Your task to perform on an android device: open app "Instagram" (install if not already installed) Image 0: 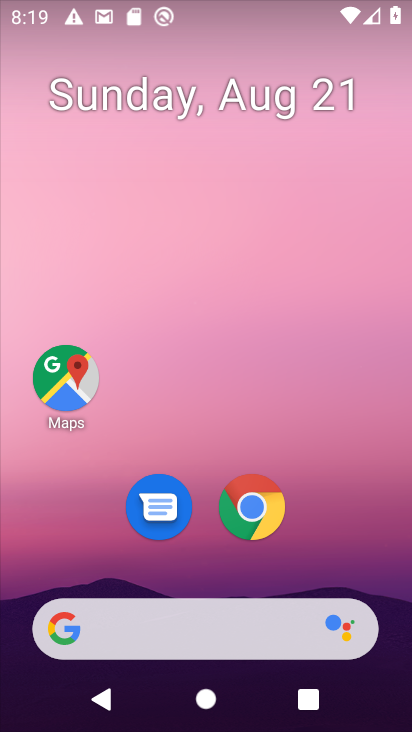
Step 0: drag from (200, 237) to (225, 36)
Your task to perform on an android device: open app "Instagram" (install if not already installed) Image 1: 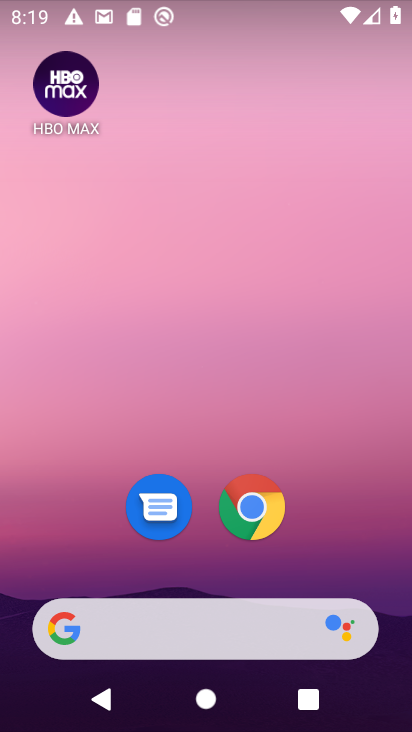
Step 1: drag from (212, 195) to (212, 133)
Your task to perform on an android device: open app "Instagram" (install if not already installed) Image 2: 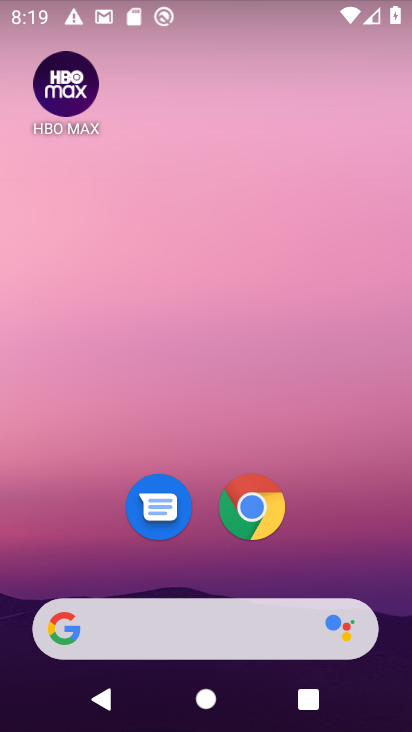
Step 2: drag from (206, 563) to (265, 42)
Your task to perform on an android device: open app "Instagram" (install if not already installed) Image 3: 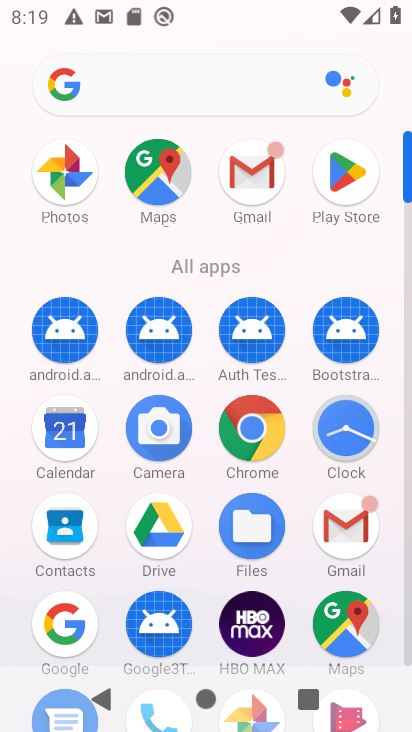
Step 3: click (341, 165)
Your task to perform on an android device: open app "Instagram" (install if not already installed) Image 4: 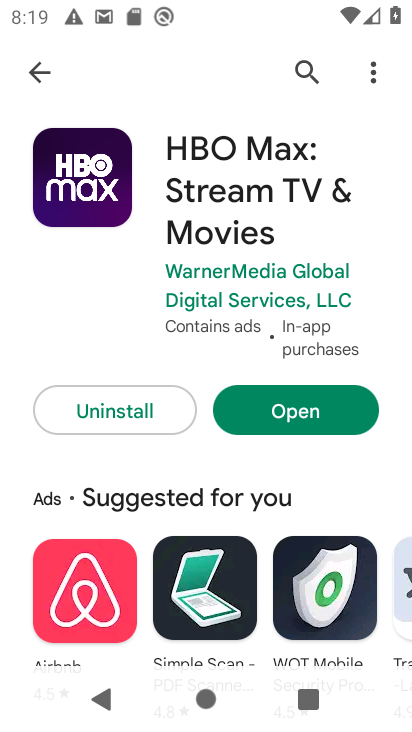
Step 4: click (41, 65)
Your task to perform on an android device: open app "Instagram" (install if not already installed) Image 5: 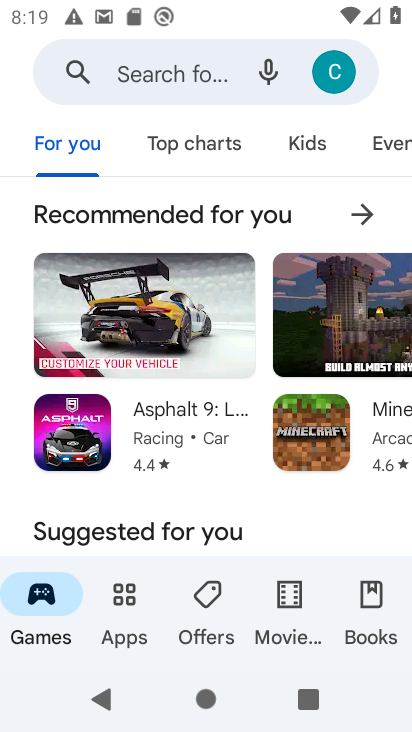
Step 5: click (152, 65)
Your task to perform on an android device: open app "Instagram" (install if not already installed) Image 6: 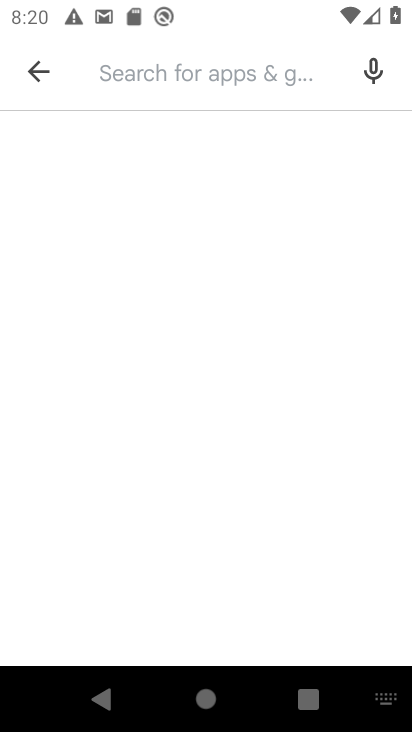
Step 6: type "Instagram"
Your task to perform on an android device: open app "Instagram" (install if not already installed) Image 7: 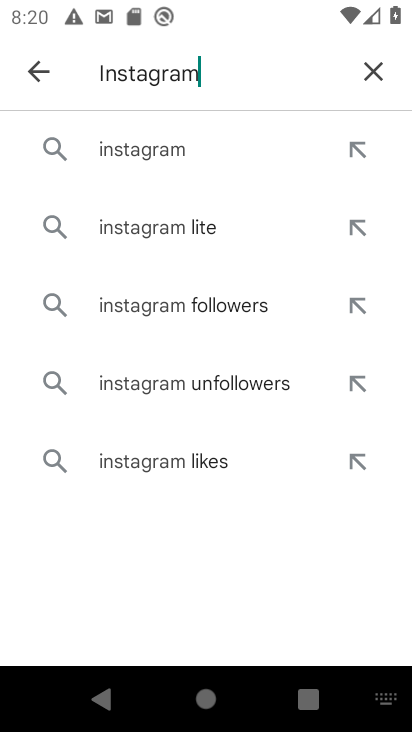
Step 7: click (167, 143)
Your task to perform on an android device: open app "Instagram" (install if not already installed) Image 8: 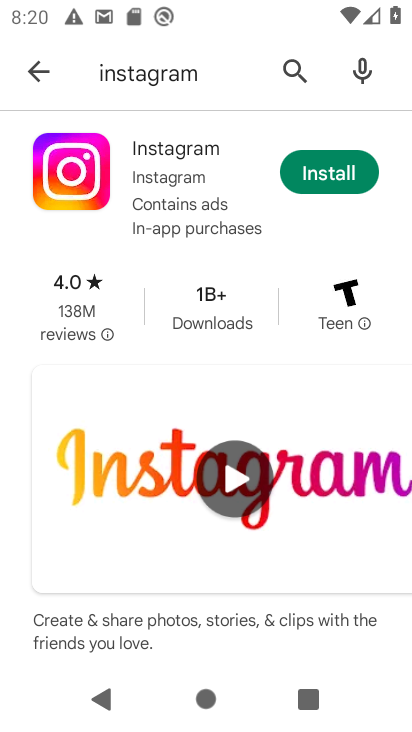
Step 8: click (332, 170)
Your task to perform on an android device: open app "Instagram" (install if not already installed) Image 9: 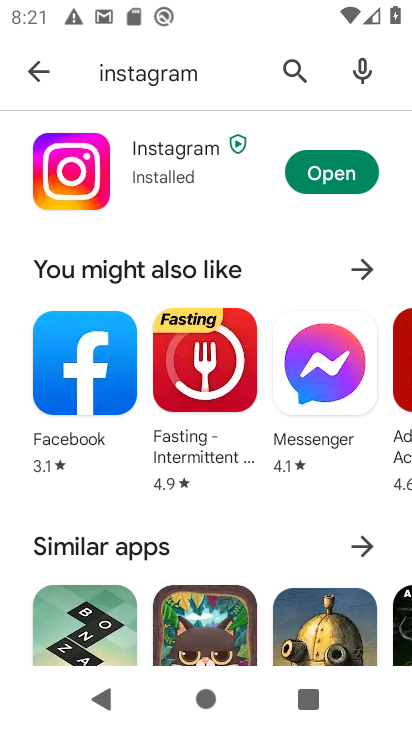
Step 9: click (332, 170)
Your task to perform on an android device: open app "Instagram" (install if not already installed) Image 10: 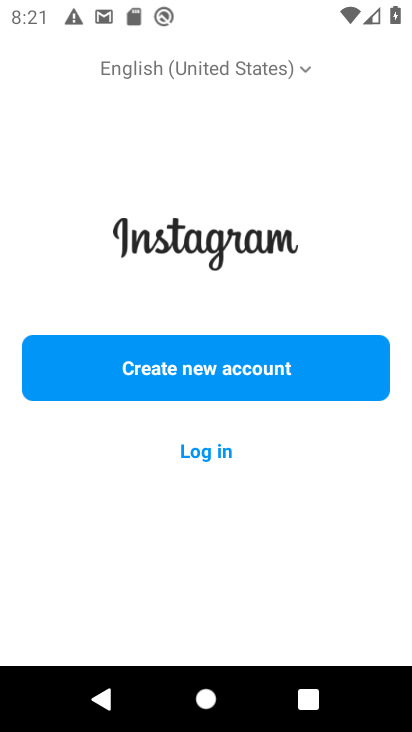
Step 10: click (204, 462)
Your task to perform on an android device: open app "Instagram" (install if not already installed) Image 11: 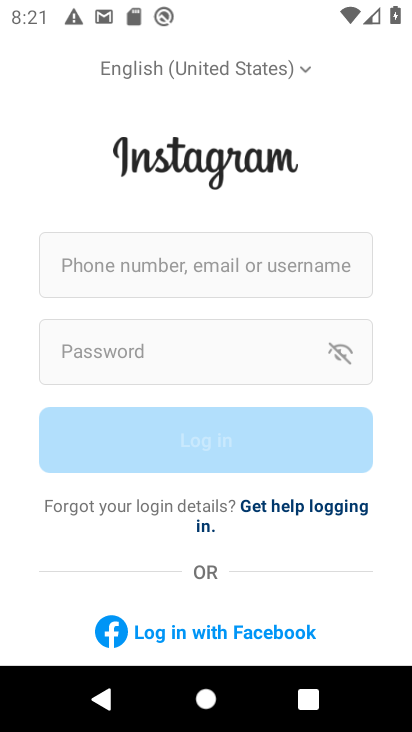
Step 11: task complete